Your task to perform on an android device: add a label to a message in the gmail app Image 0: 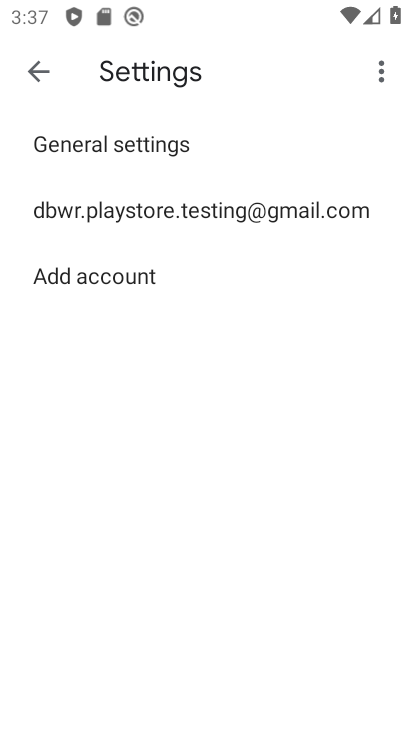
Step 0: press home button
Your task to perform on an android device: add a label to a message in the gmail app Image 1: 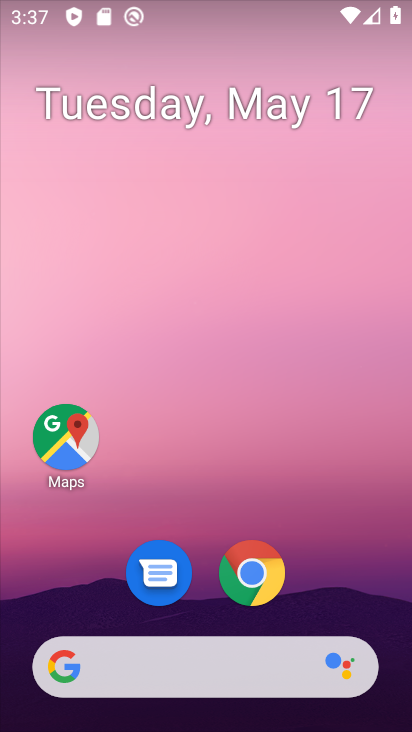
Step 1: drag from (327, 591) to (174, 42)
Your task to perform on an android device: add a label to a message in the gmail app Image 2: 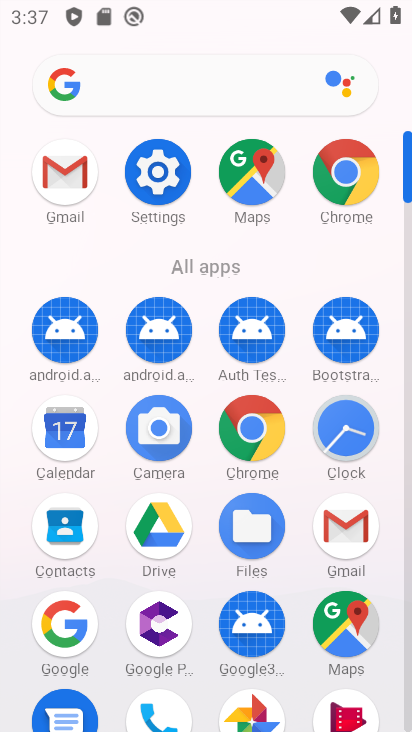
Step 2: click (72, 193)
Your task to perform on an android device: add a label to a message in the gmail app Image 3: 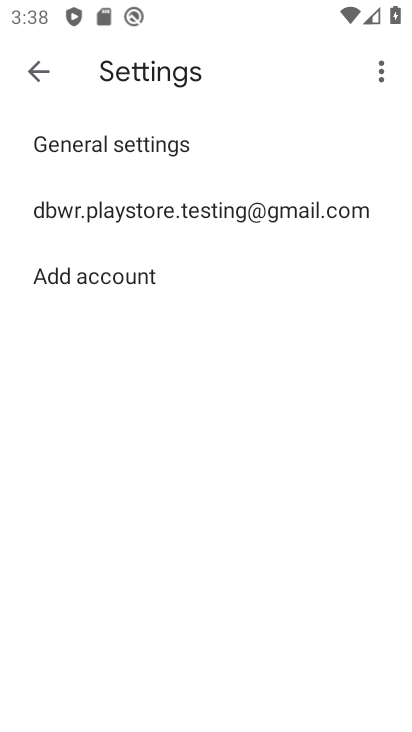
Step 3: click (37, 70)
Your task to perform on an android device: add a label to a message in the gmail app Image 4: 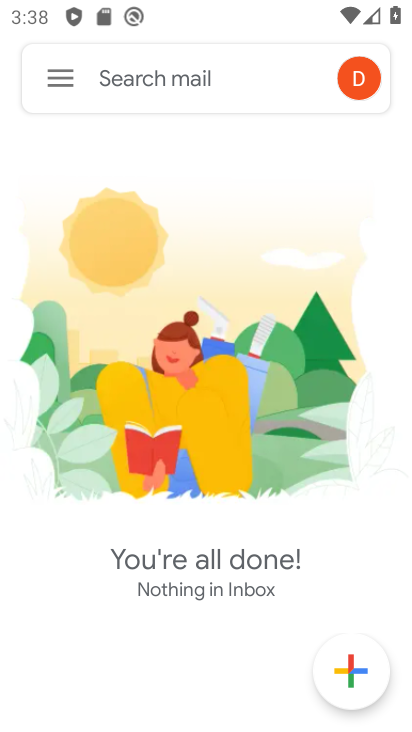
Step 4: click (47, 76)
Your task to perform on an android device: add a label to a message in the gmail app Image 5: 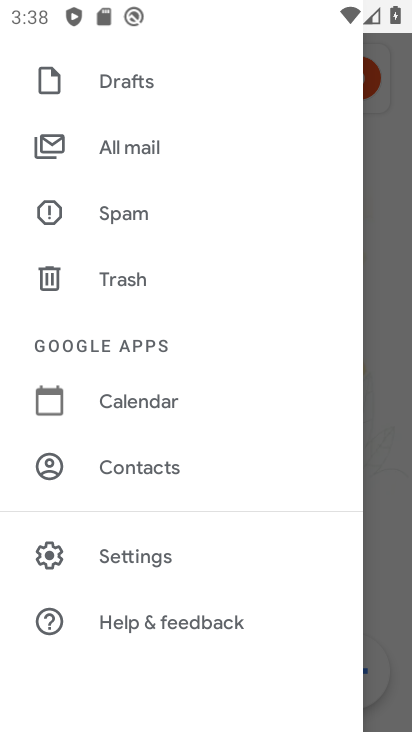
Step 5: click (130, 146)
Your task to perform on an android device: add a label to a message in the gmail app Image 6: 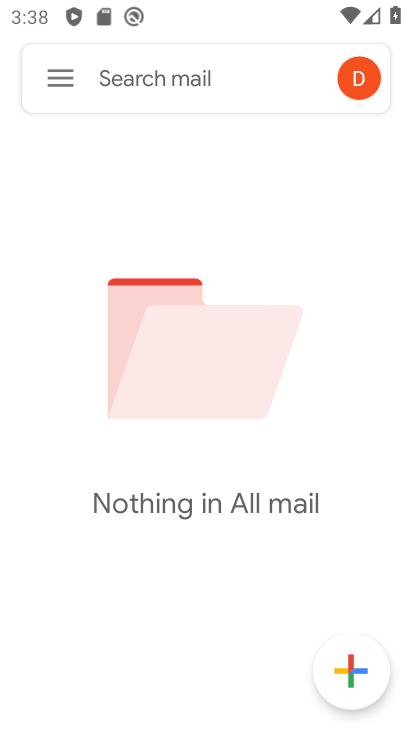
Step 6: task complete